Your task to perform on an android device: toggle notifications settings in the gmail app Image 0: 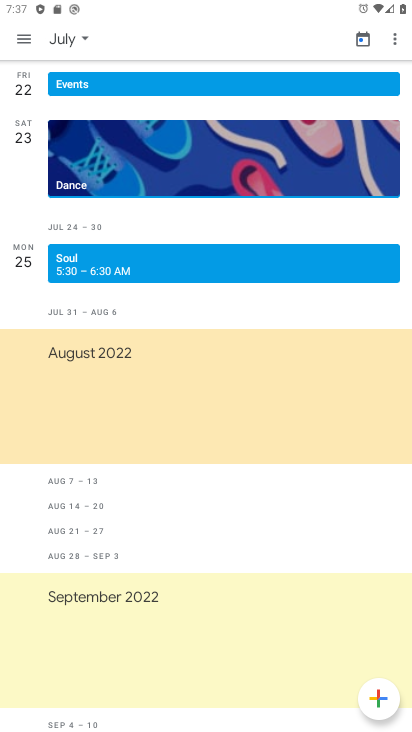
Step 0: press home button
Your task to perform on an android device: toggle notifications settings in the gmail app Image 1: 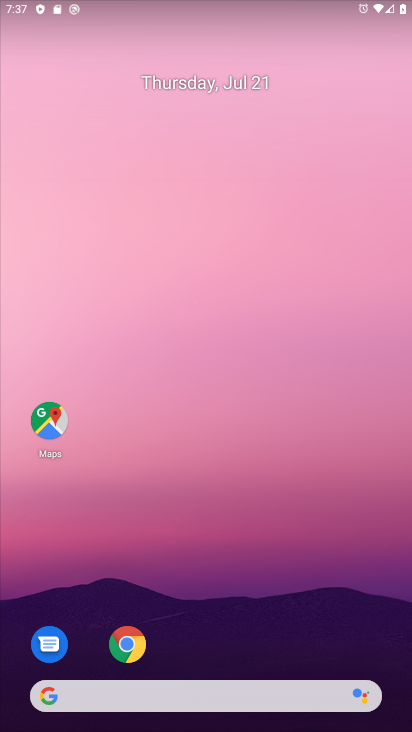
Step 1: drag from (243, 508) to (243, 187)
Your task to perform on an android device: toggle notifications settings in the gmail app Image 2: 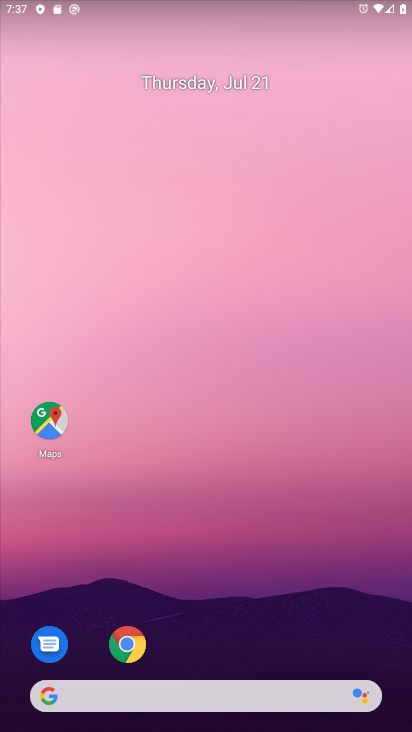
Step 2: drag from (180, 687) to (205, 271)
Your task to perform on an android device: toggle notifications settings in the gmail app Image 3: 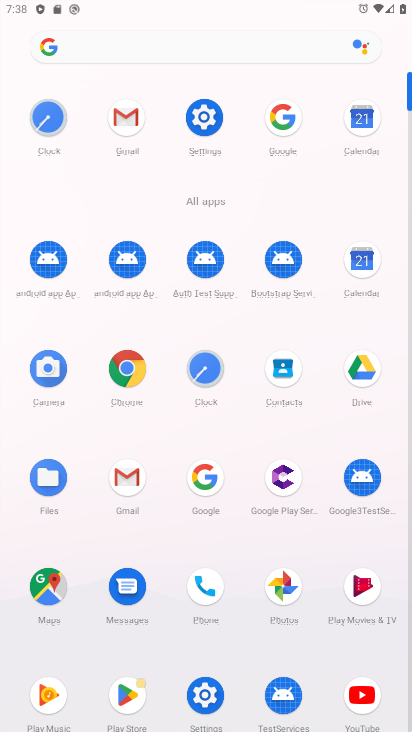
Step 3: click (123, 478)
Your task to perform on an android device: toggle notifications settings in the gmail app Image 4: 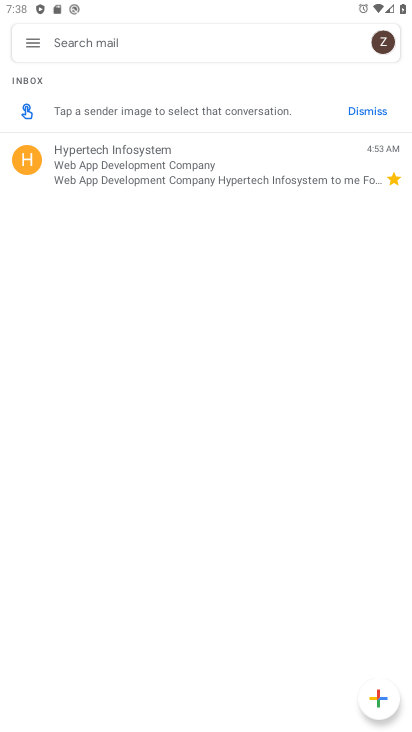
Step 4: click (25, 24)
Your task to perform on an android device: toggle notifications settings in the gmail app Image 5: 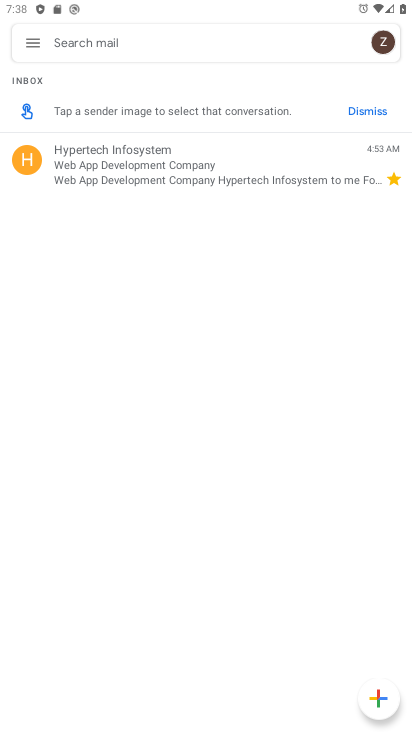
Step 5: click (32, 38)
Your task to perform on an android device: toggle notifications settings in the gmail app Image 6: 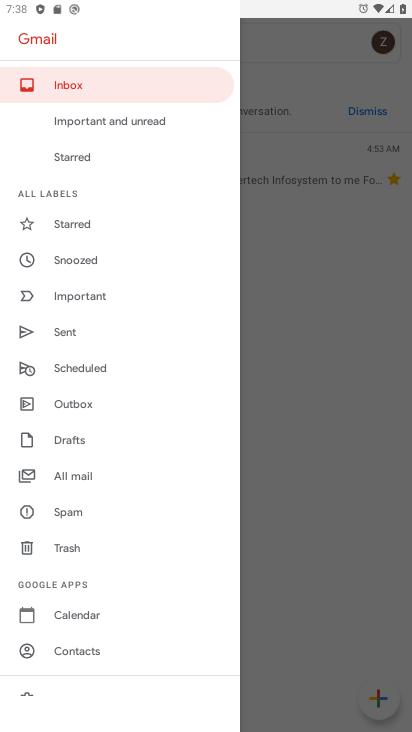
Step 6: drag from (102, 605) to (129, 258)
Your task to perform on an android device: toggle notifications settings in the gmail app Image 7: 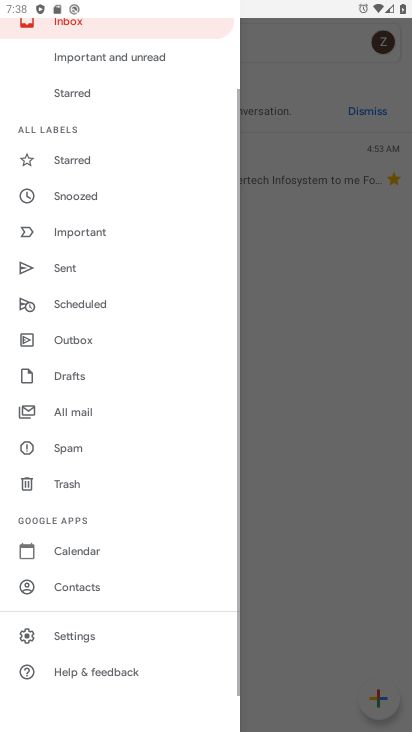
Step 7: click (82, 632)
Your task to perform on an android device: toggle notifications settings in the gmail app Image 8: 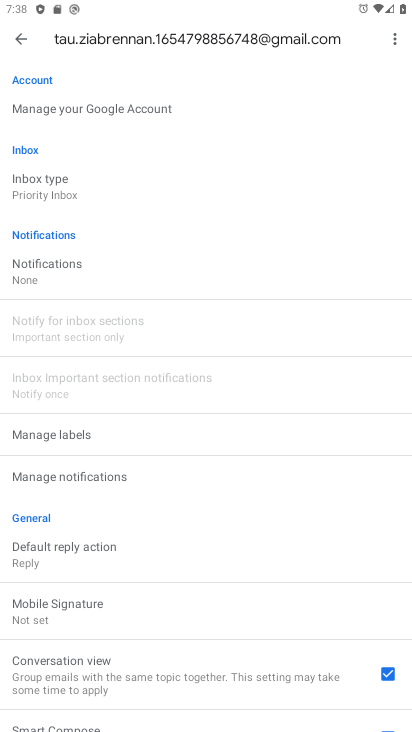
Step 8: click (75, 263)
Your task to perform on an android device: toggle notifications settings in the gmail app Image 9: 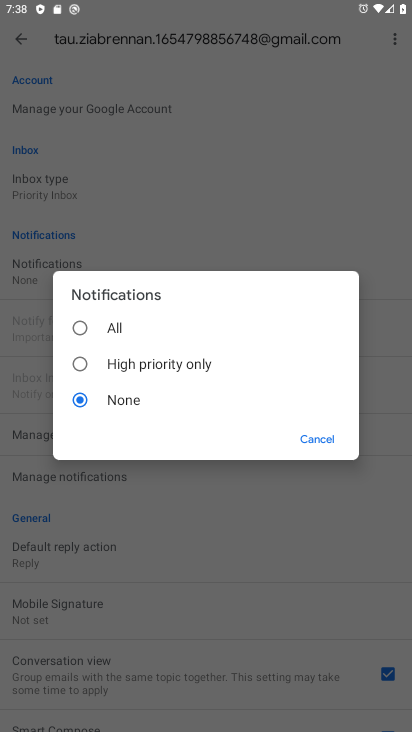
Step 9: task complete